Your task to perform on an android device: turn on javascript in the chrome app Image 0: 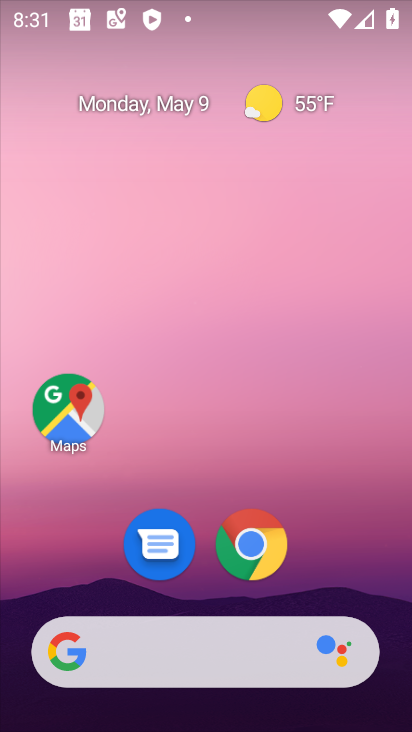
Step 0: click (254, 525)
Your task to perform on an android device: turn on javascript in the chrome app Image 1: 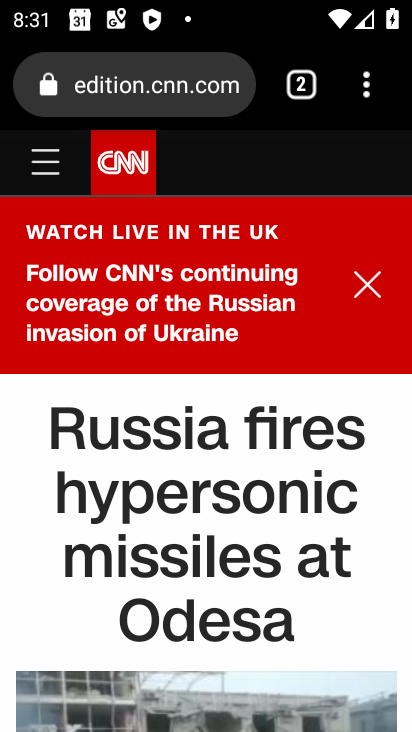
Step 1: click (361, 89)
Your task to perform on an android device: turn on javascript in the chrome app Image 2: 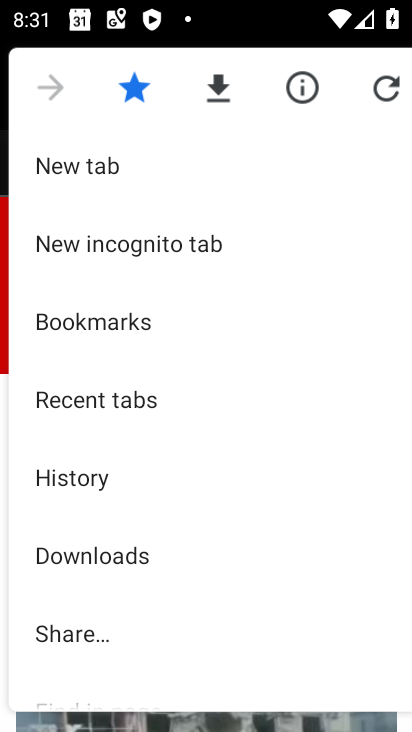
Step 2: drag from (165, 671) to (228, 221)
Your task to perform on an android device: turn on javascript in the chrome app Image 3: 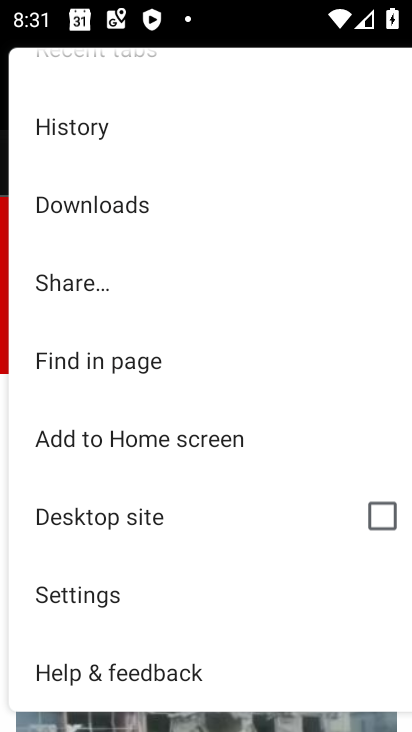
Step 3: click (94, 582)
Your task to perform on an android device: turn on javascript in the chrome app Image 4: 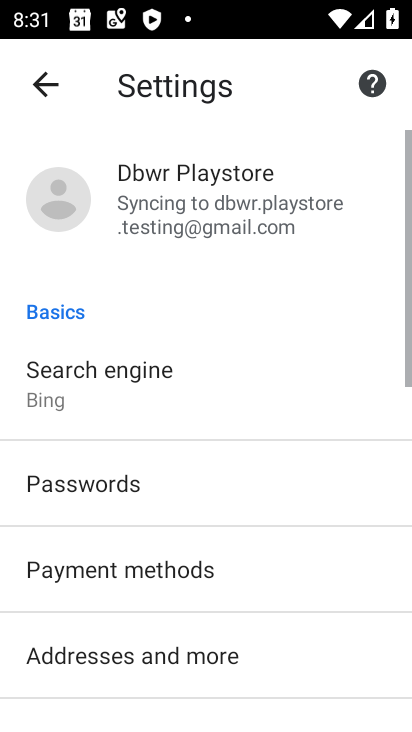
Step 4: drag from (163, 596) to (258, 150)
Your task to perform on an android device: turn on javascript in the chrome app Image 5: 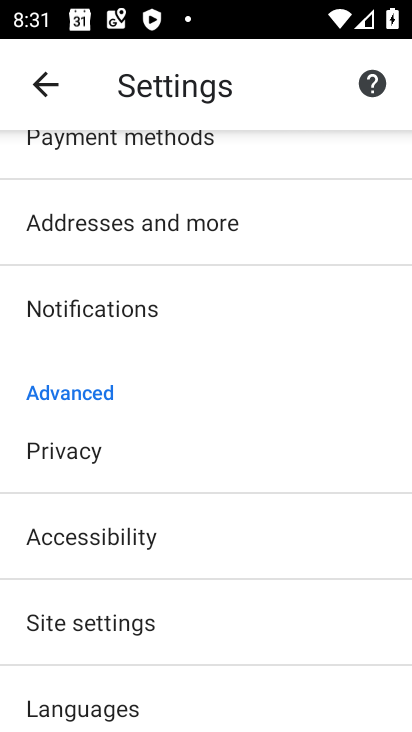
Step 5: click (154, 606)
Your task to perform on an android device: turn on javascript in the chrome app Image 6: 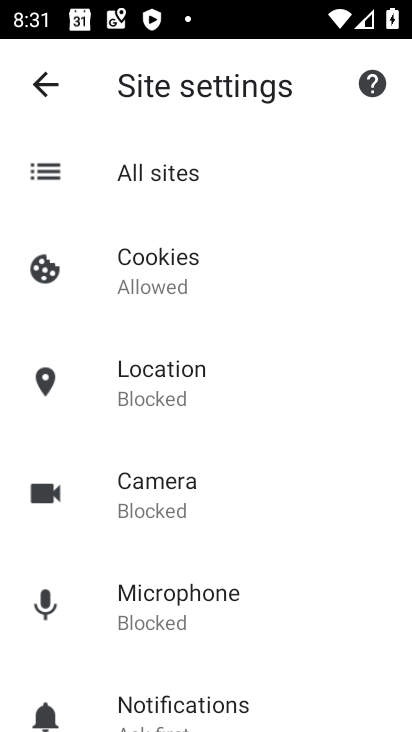
Step 6: drag from (226, 658) to (247, 458)
Your task to perform on an android device: turn on javascript in the chrome app Image 7: 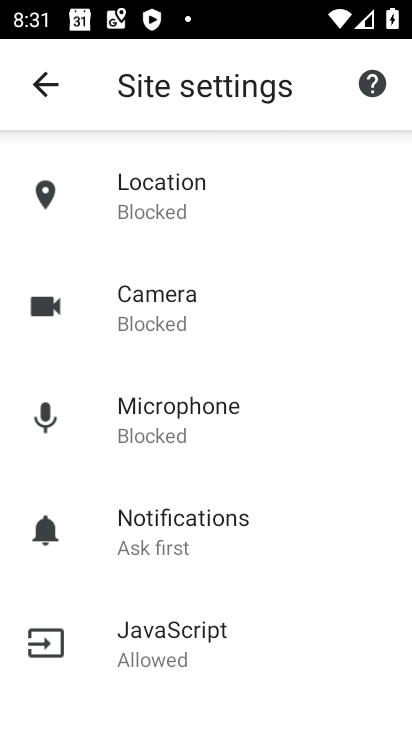
Step 7: click (191, 633)
Your task to perform on an android device: turn on javascript in the chrome app Image 8: 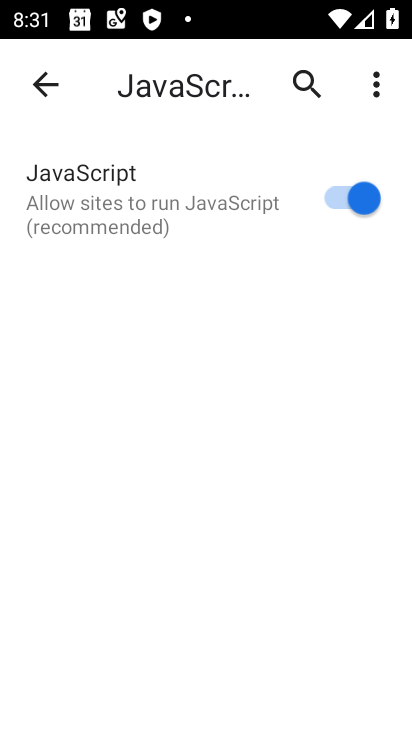
Step 8: task complete